Your task to perform on an android device: Open Chrome and go to settings Image 0: 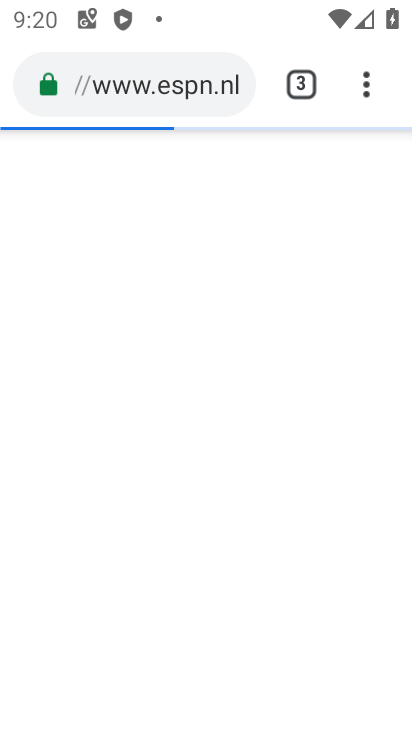
Step 0: press home button
Your task to perform on an android device: Open Chrome and go to settings Image 1: 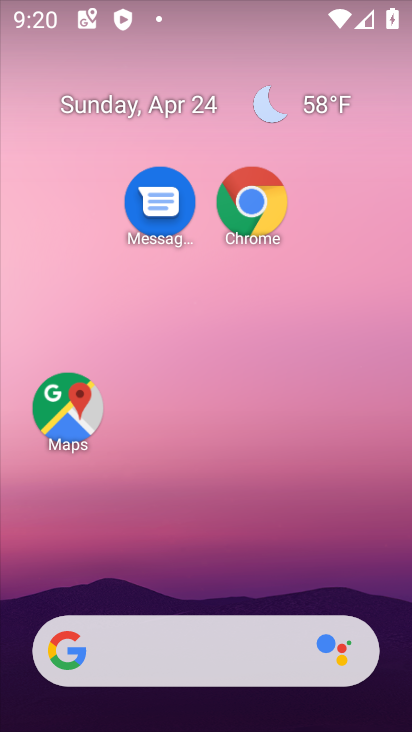
Step 1: click (253, 201)
Your task to perform on an android device: Open Chrome and go to settings Image 2: 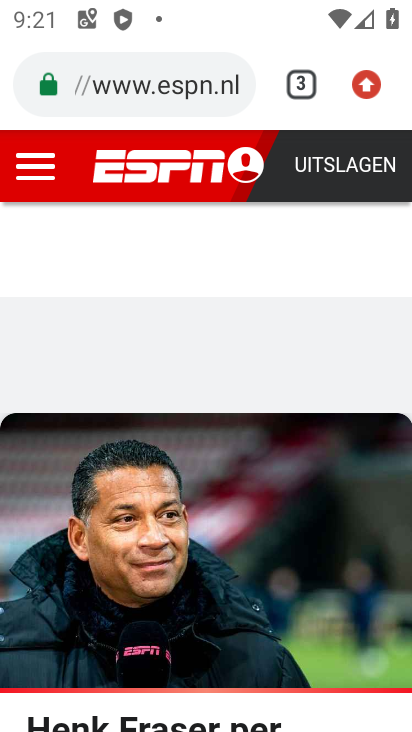
Step 2: task complete